Your task to perform on an android device: Open Youtube and go to the subscriptions tab Image 0: 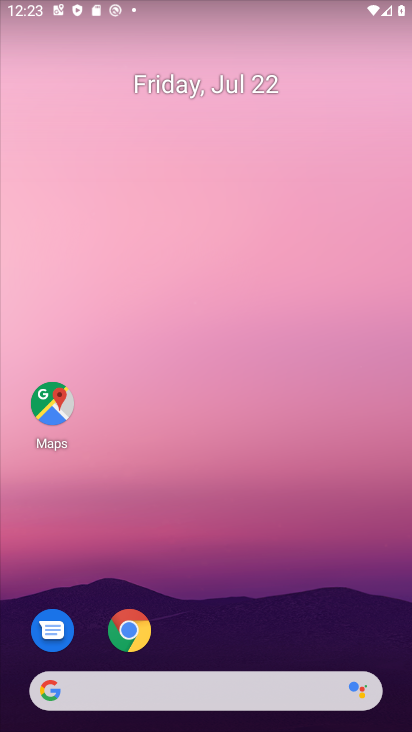
Step 0: drag from (219, 621) to (267, 143)
Your task to perform on an android device: Open Youtube and go to the subscriptions tab Image 1: 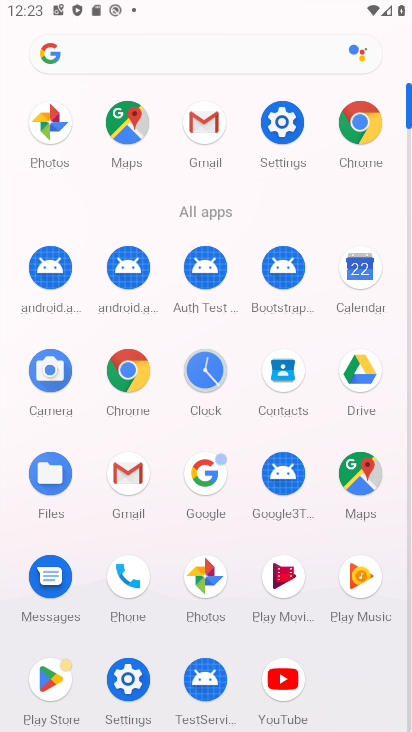
Step 1: click (292, 678)
Your task to perform on an android device: Open Youtube and go to the subscriptions tab Image 2: 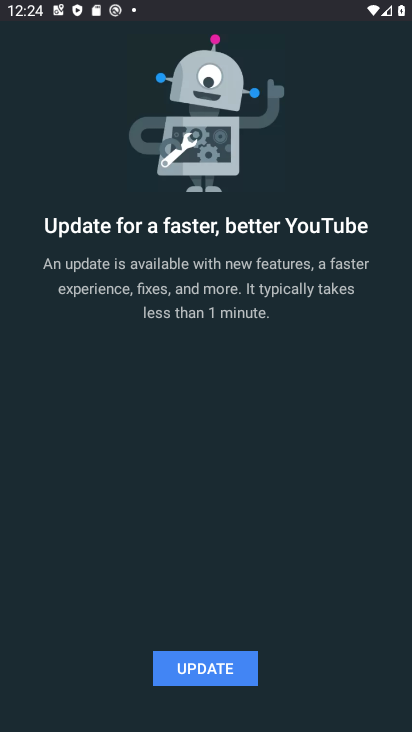
Step 2: click (215, 675)
Your task to perform on an android device: Open Youtube and go to the subscriptions tab Image 3: 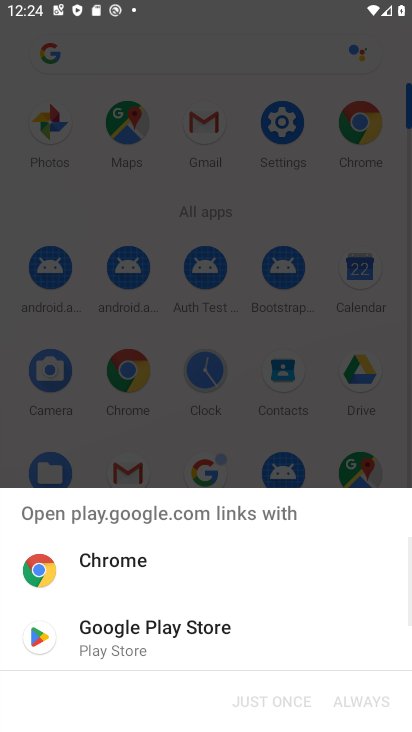
Step 3: click (205, 624)
Your task to perform on an android device: Open Youtube and go to the subscriptions tab Image 4: 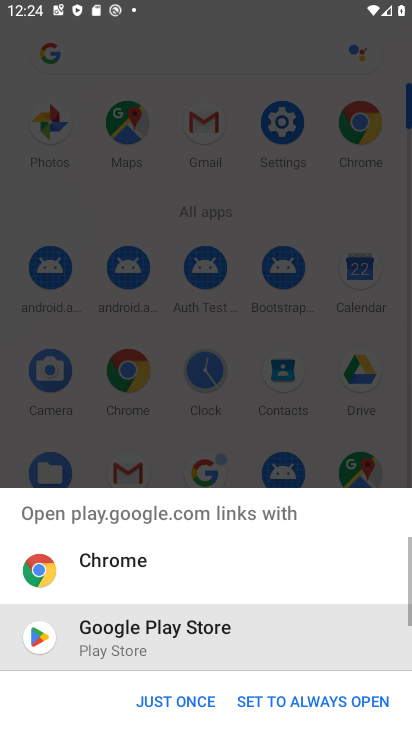
Step 4: click (178, 695)
Your task to perform on an android device: Open Youtube and go to the subscriptions tab Image 5: 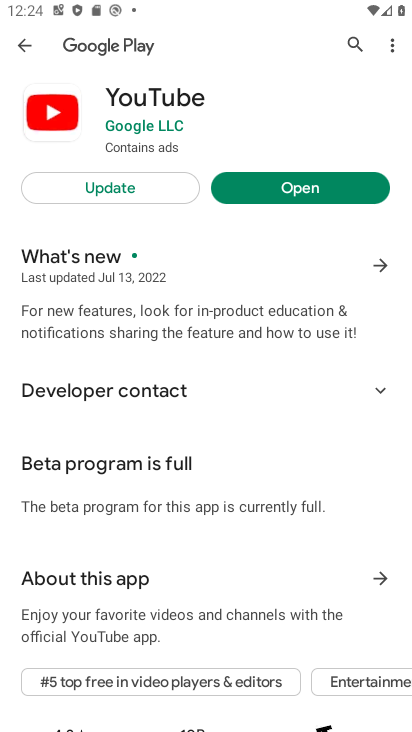
Step 5: click (129, 185)
Your task to perform on an android device: Open Youtube and go to the subscriptions tab Image 6: 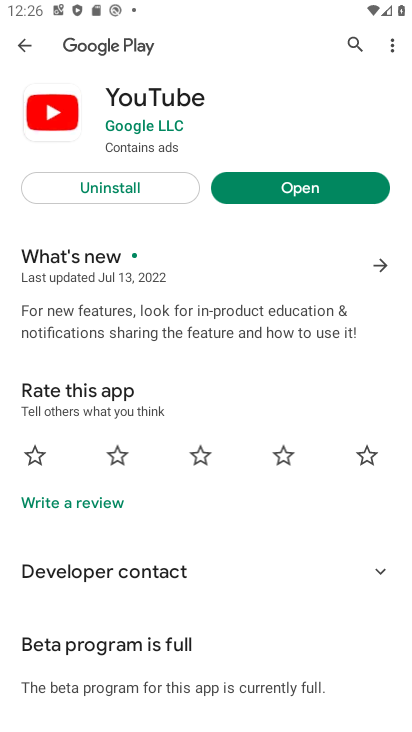
Step 6: click (271, 185)
Your task to perform on an android device: Open Youtube and go to the subscriptions tab Image 7: 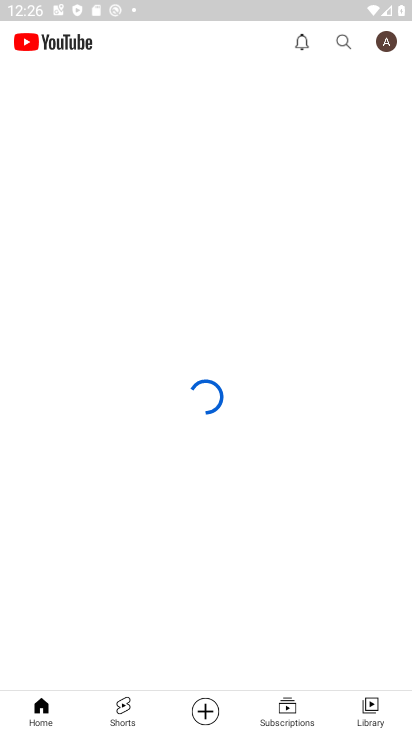
Step 7: click (268, 704)
Your task to perform on an android device: Open Youtube and go to the subscriptions tab Image 8: 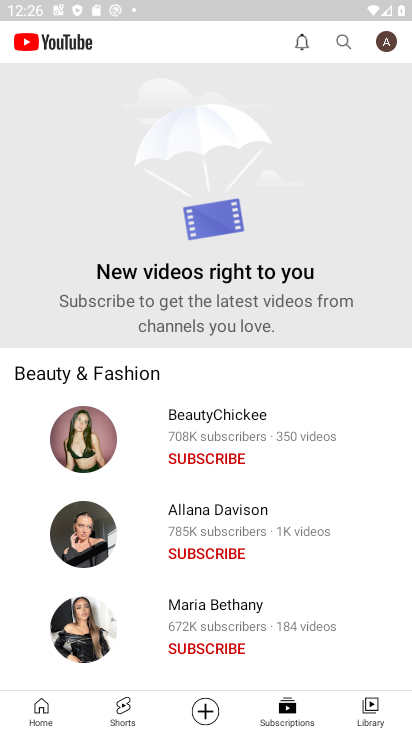
Step 8: task complete